Your task to perform on an android device: Find coffee shops on Maps Image 0: 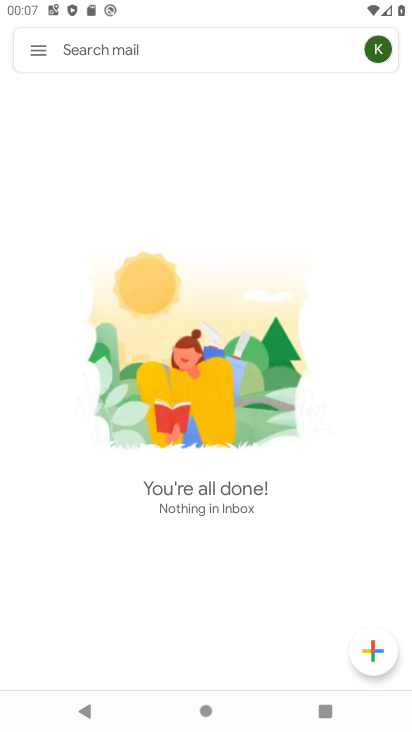
Step 0: click (405, 201)
Your task to perform on an android device: Find coffee shops on Maps Image 1: 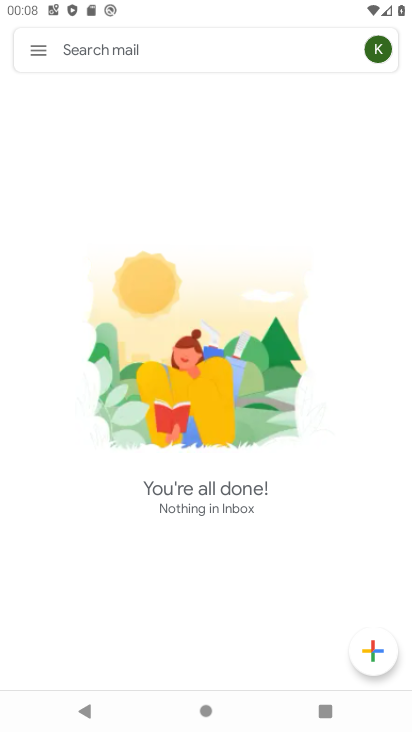
Step 1: drag from (239, 644) to (217, 315)
Your task to perform on an android device: Find coffee shops on Maps Image 2: 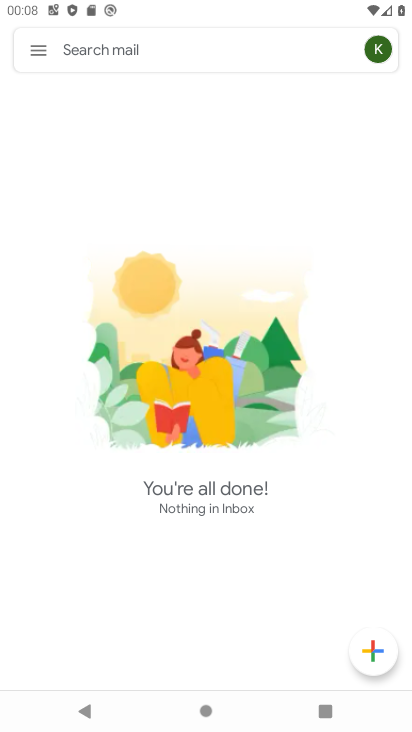
Step 2: drag from (256, 585) to (254, 361)
Your task to perform on an android device: Find coffee shops on Maps Image 3: 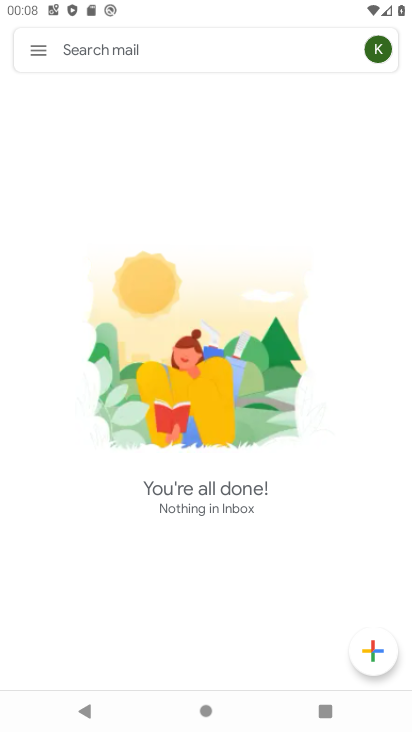
Step 3: drag from (230, 611) to (234, 25)
Your task to perform on an android device: Find coffee shops on Maps Image 4: 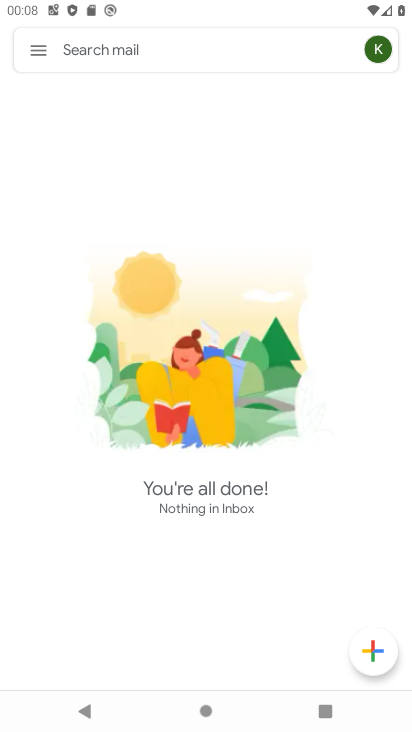
Step 4: drag from (204, 601) to (223, 42)
Your task to perform on an android device: Find coffee shops on Maps Image 5: 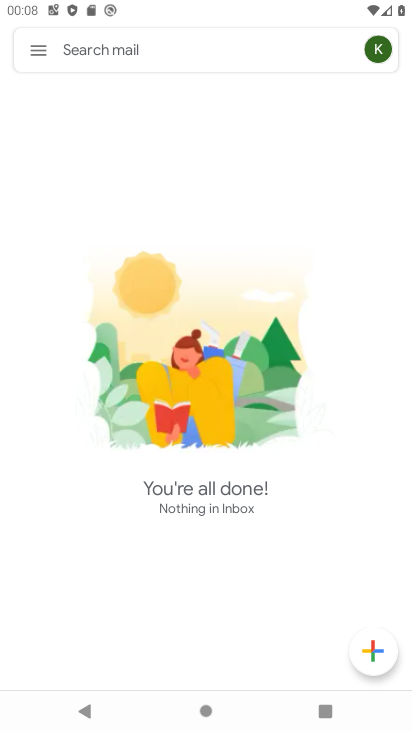
Step 5: drag from (162, 594) to (237, 351)
Your task to perform on an android device: Find coffee shops on Maps Image 6: 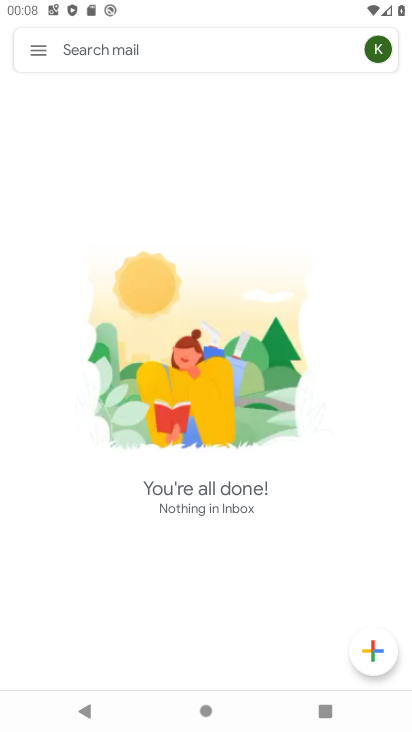
Step 6: click (37, 57)
Your task to perform on an android device: Find coffee shops on Maps Image 7: 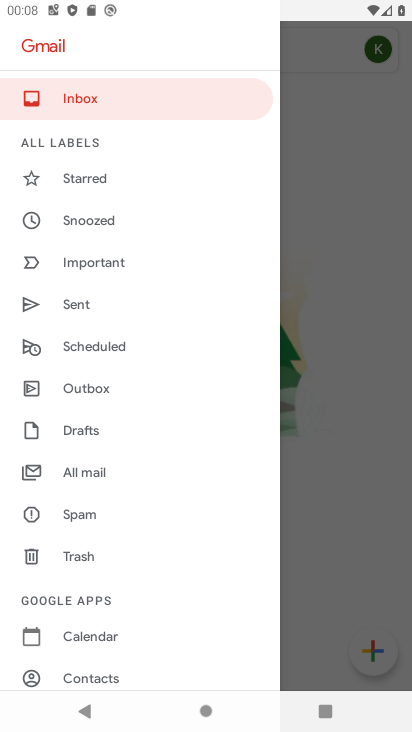
Step 7: drag from (104, 578) to (189, 143)
Your task to perform on an android device: Find coffee shops on Maps Image 8: 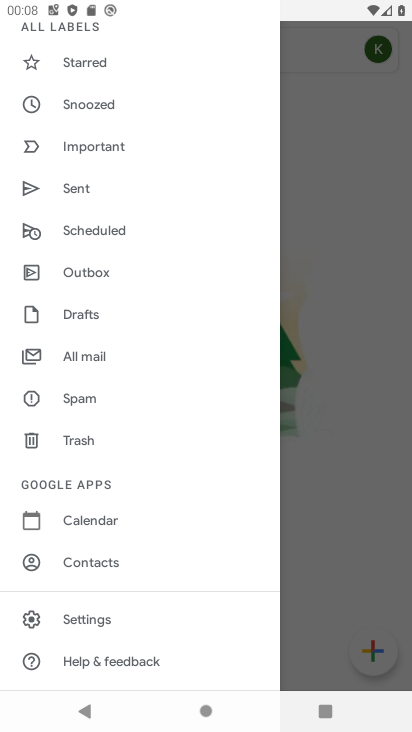
Step 8: drag from (146, 557) to (192, 378)
Your task to perform on an android device: Find coffee shops on Maps Image 9: 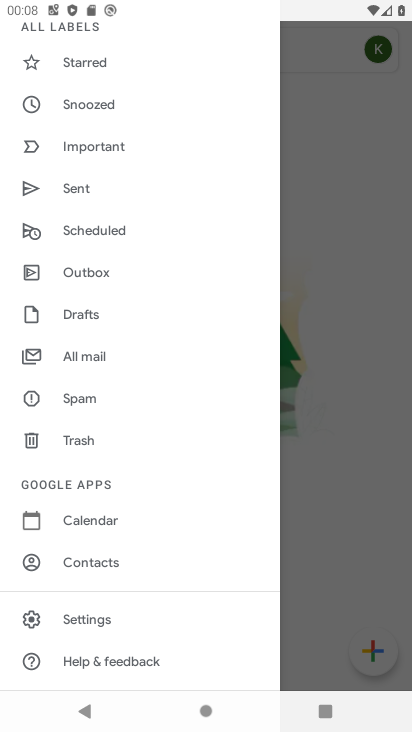
Step 9: drag from (142, 179) to (139, 485)
Your task to perform on an android device: Find coffee shops on Maps Image 10: 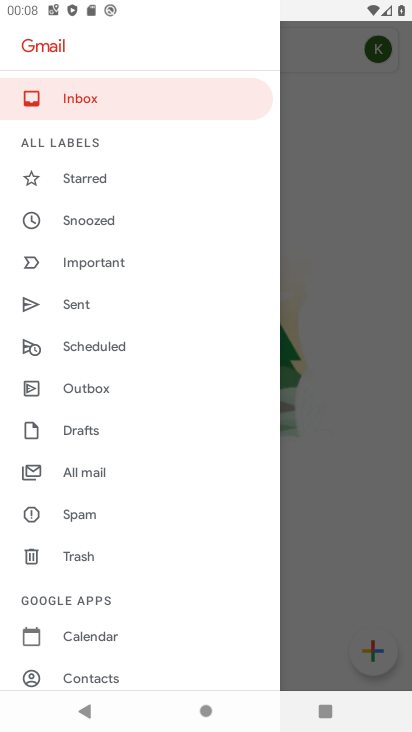
Step 10: press home button
Your task to perform on an android device: Find coffee shops on Maps Image 11: 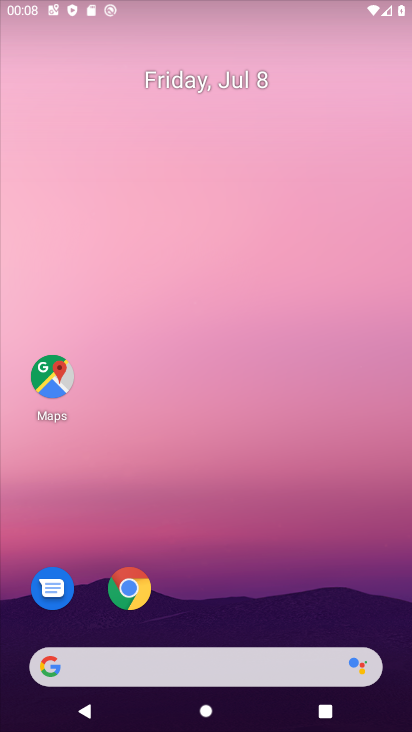
Step 11: drag from (207, 615) to (207, 471)
Your task to perform on an android device: Find coffee shops on Maps Image 12: 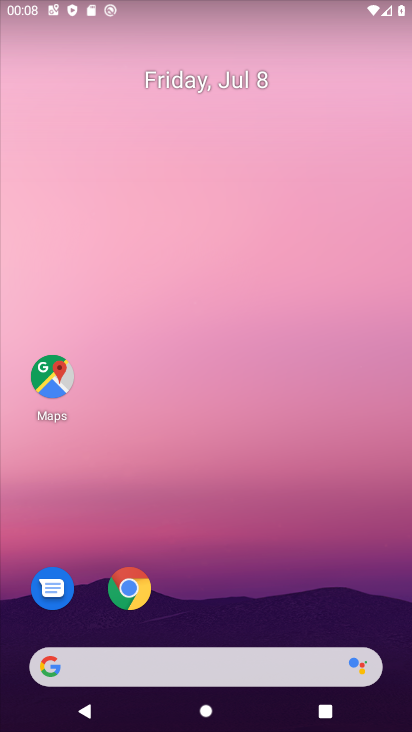
Step 12: drag from (264, 565) to (346, 294)
Your task to perform on an android device: Find coffee shops on Maps Image 13: 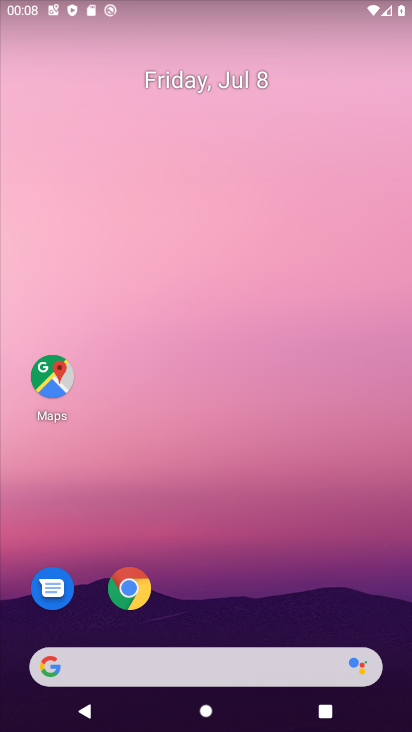
Step 13: drag from (206, 350) to (219, 156)
Your task to perform on an android device: Find coffee shops on Maps Image 14: 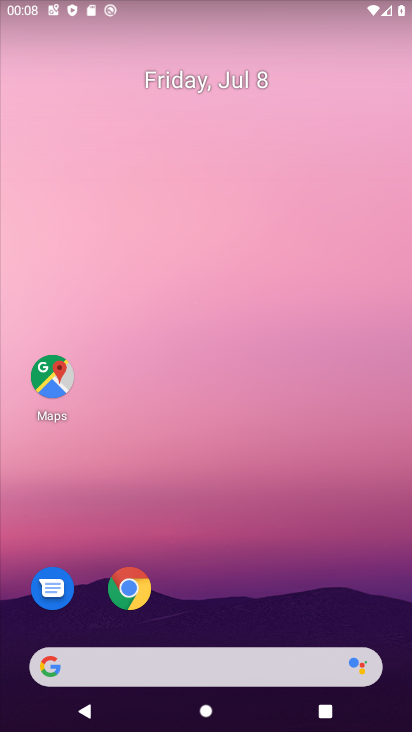
Step 14: click (51, 370)
Your task to perform on an android device: Find coffee shops on Maps Image 15: 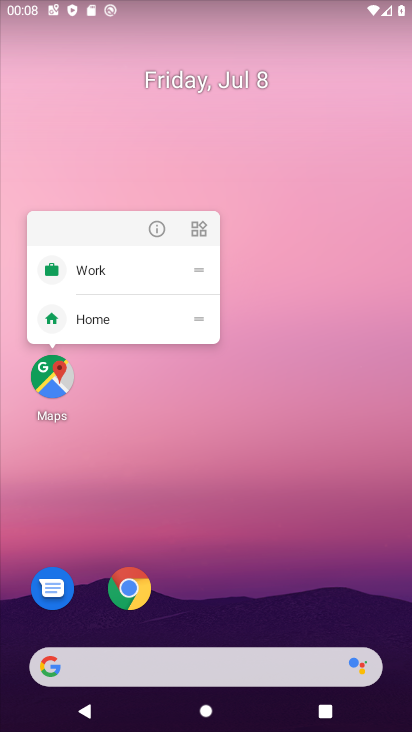
Step 15: click (156, 225)
Your task to perform on an android device: Find coffee shops on Maps Image 16: 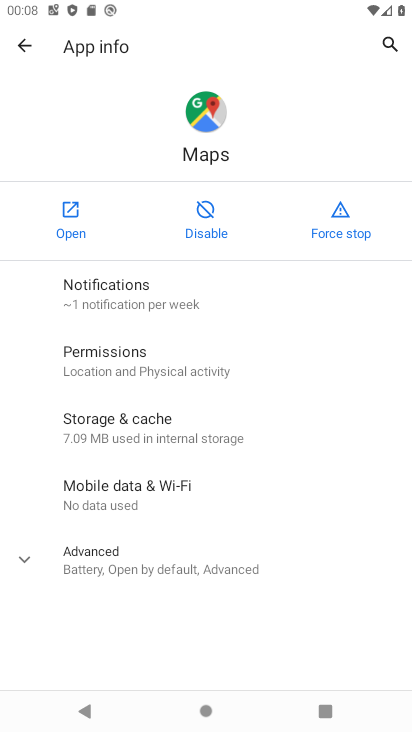
Step 16: click (71, 196)
Your task to perform on an android device: Find coffee shops on Maps Image 17: 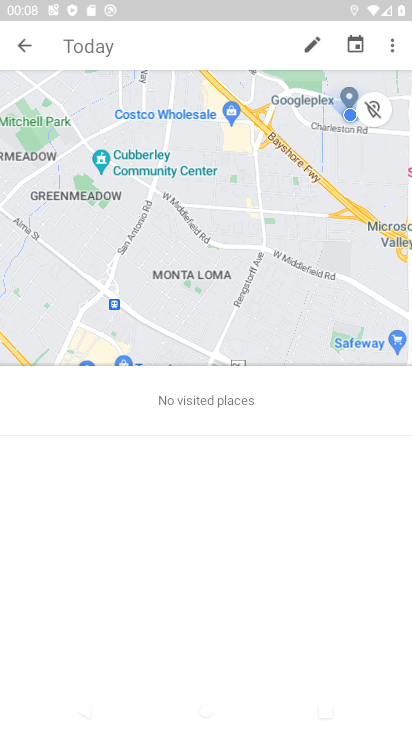
Step 17: drag from (270, 533) to (273, 187)
Your task to perform on an android device: Find coffee shops on Maps Image 18: 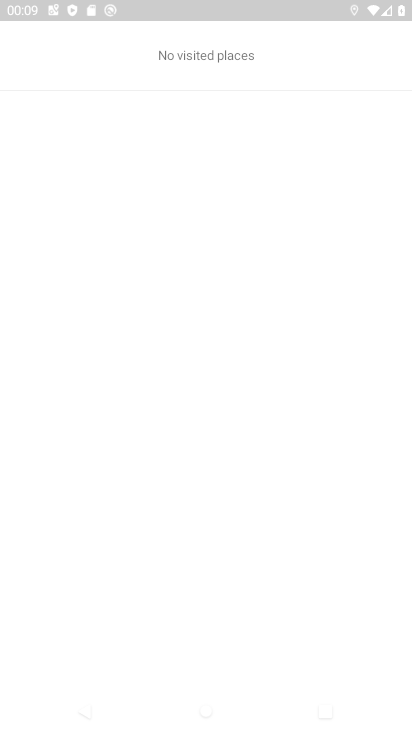
Step 18: press back button
Your task to perform on an android device: Find coffee shops on Maps Image 19: 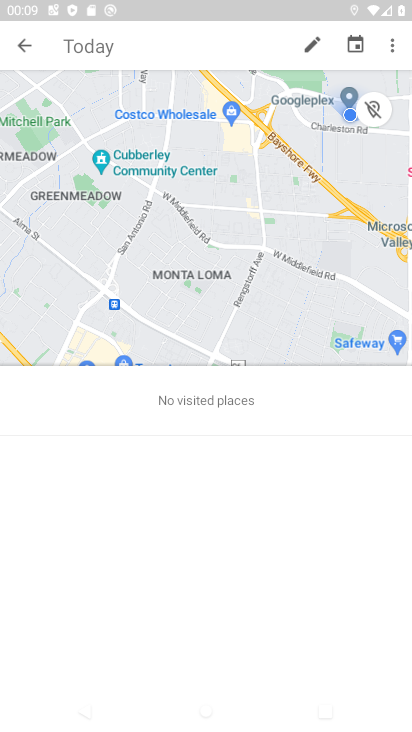
Step 19: drag from (214, 466) to (205, 341)
Your task to perform on an android device: Find coffee shops on Maps Image 20: 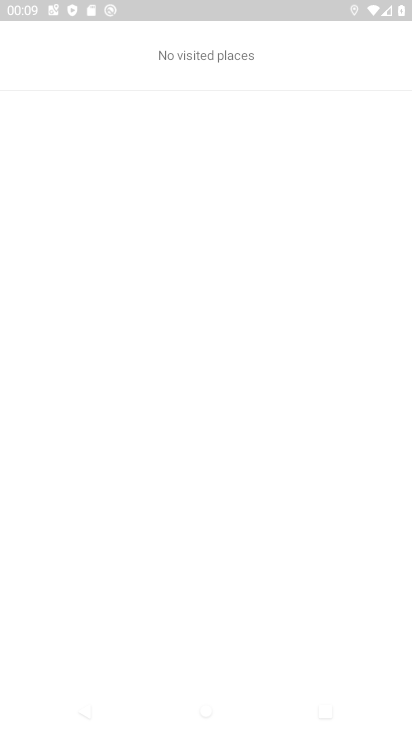
Step 20: click (33, 54)
Your task to perform on an android device: Find coffee shops on Maps Image 21: 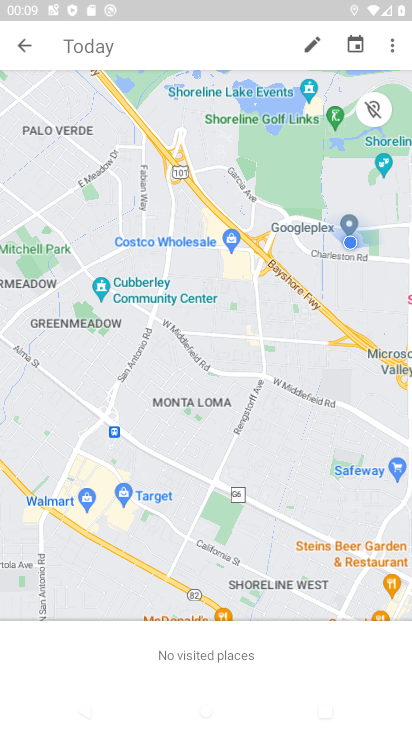
Step 21: drag from (72, 120) to (273, 606)
Your task to perform on an android device: Find coffee shops on Maps Image 22: 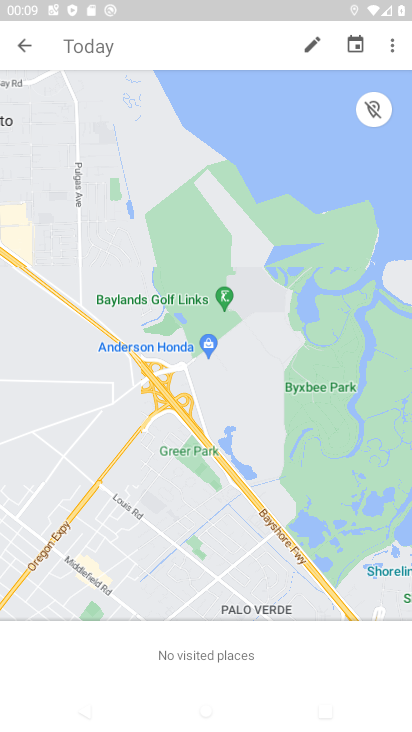
Step 22: click (23, 53)
Your task to perform on an android device: Find coffee shops on Maps Image 23: 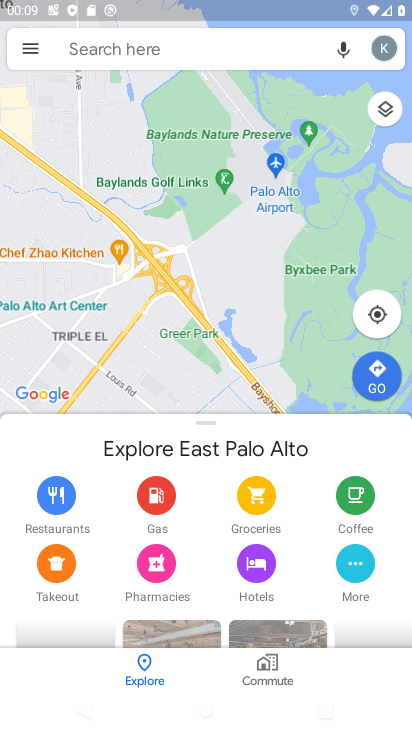
Step 23: click (20, 46)
Your task to perform on an android device: Find coffee shops on Maps Image 24: 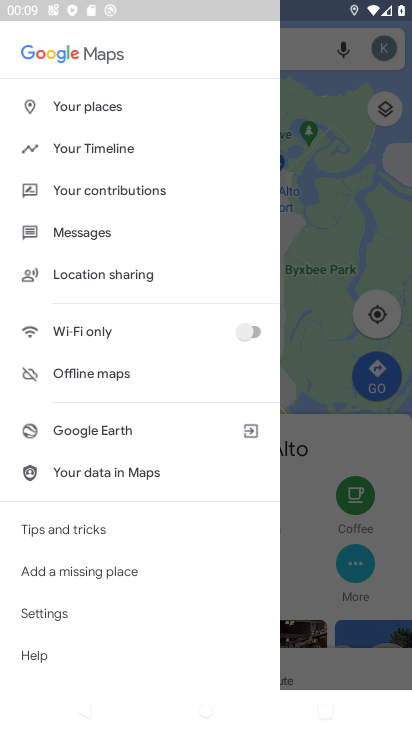
Step 24: drag from (73, 131) to (156, 728)
Your task to perform on an android device: Find coffee shops on Maps Image 25: 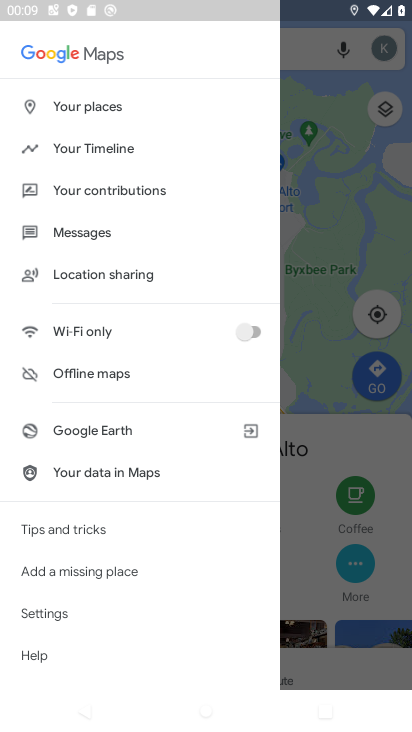
Step 25: click (297, 45)
Your task to perform on an android device: Find coffee shops on Maps Image 26: 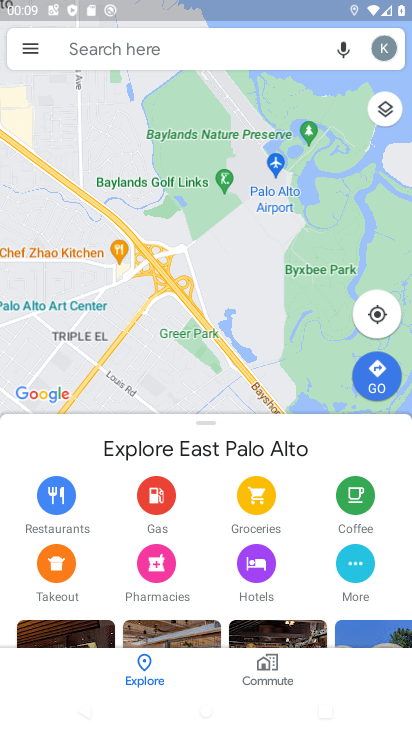
Step 26: click (115, 58)
Your task to perform on an android device: Find coffee shops on Maps Image 27: 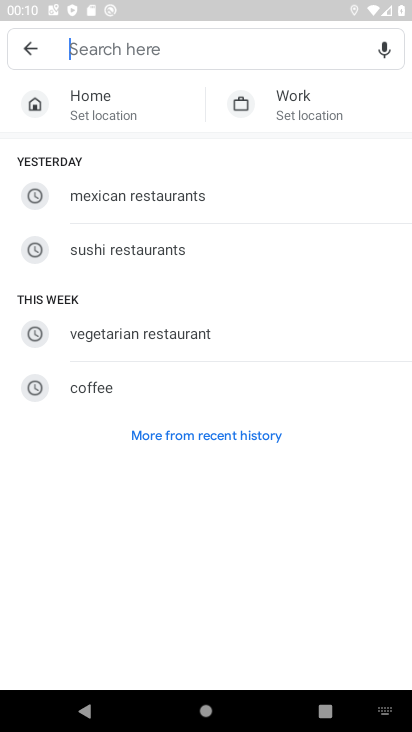
Step 27: type "coffee shops"
Your task to perform on an android device: Find coffee shops on Maps Image 28: 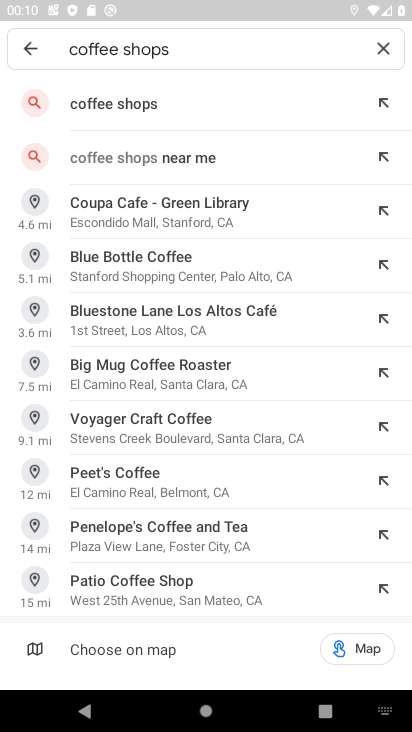
Step 28: click (143, 110)
Your task to perform on an android device: Find coffee shops on Maps Image 29: 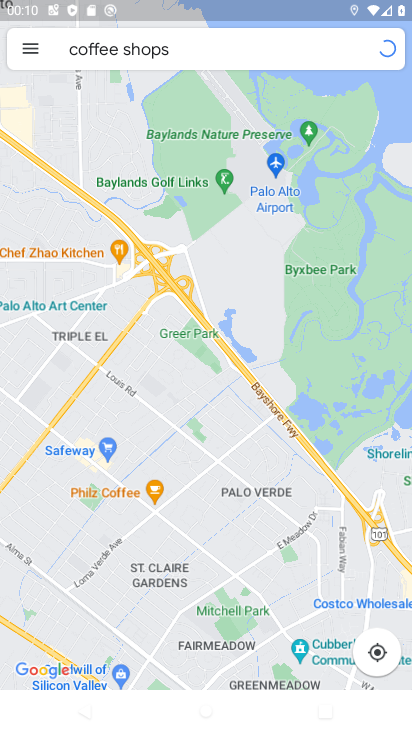
Step 29: task complete